Your task to perform on an android device: turn pop-ups on in chrome Image 0: 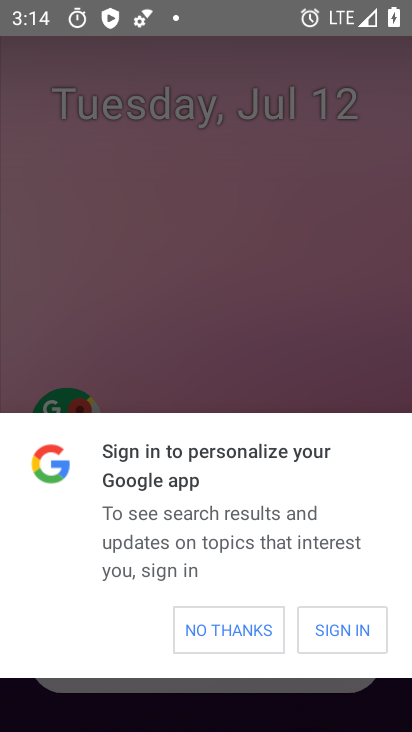
Step 0: press home button
Your task to perform on an android device: turn pop-ups on in chrome Image 1: 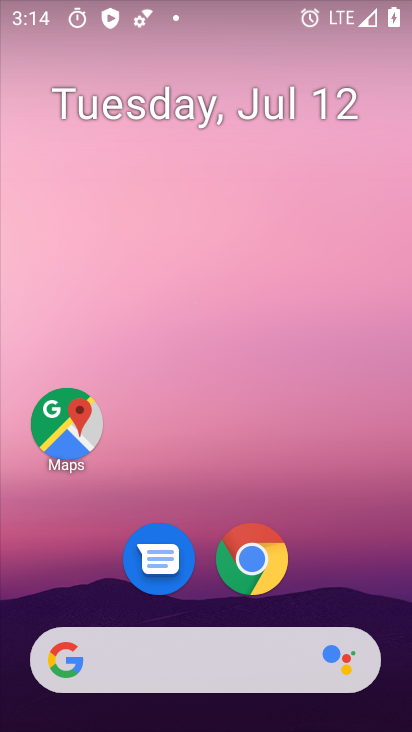
Step 1: drag from (370, 603) to (355, 149)
Your task to perform on an android device: turn pop-ups on in chrome Image 2: 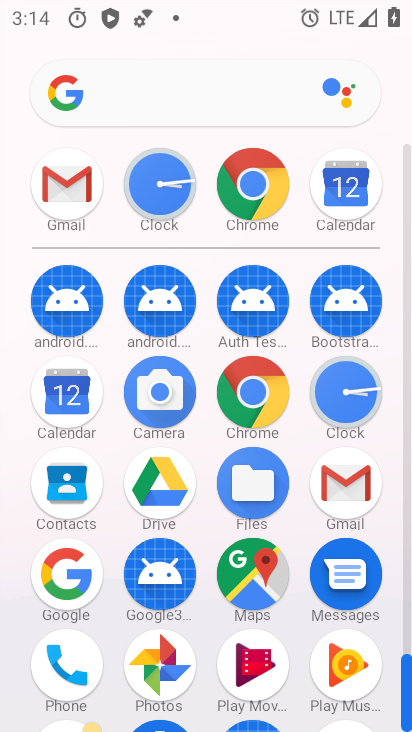
Step 2: click (260, 396)
Your task to perform on an android device: turn pop-ups on in chrome Image 3: 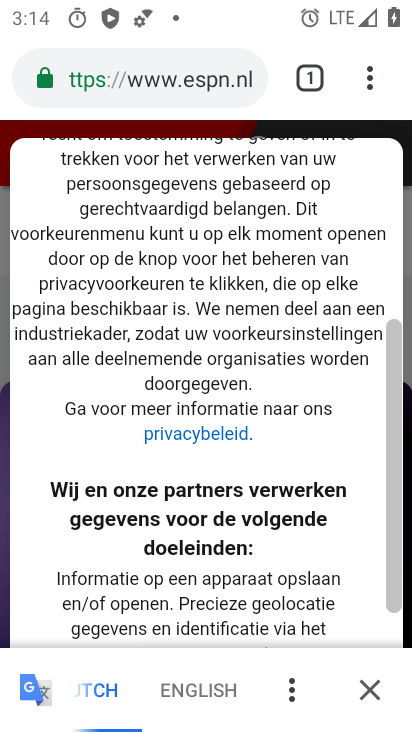
Step 3: click (370, 83)
Your task to perform on an android device: turn pop-ups on in chrome Image 4: 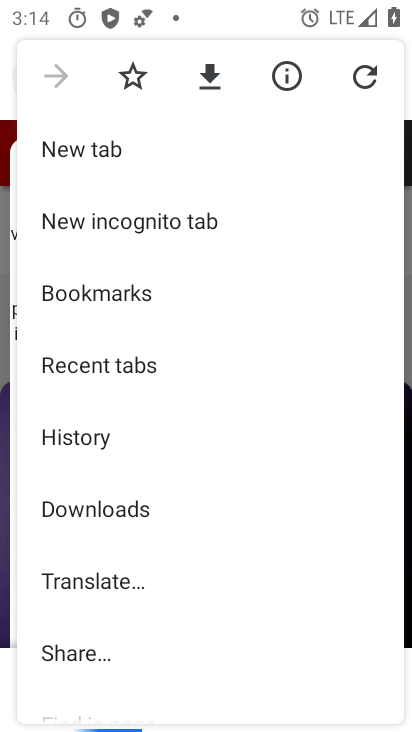
Step 4: drag from (338, 352) to (339, 292)
Your task to perform on an android device: turn pop-ups on in chrome Image 5: 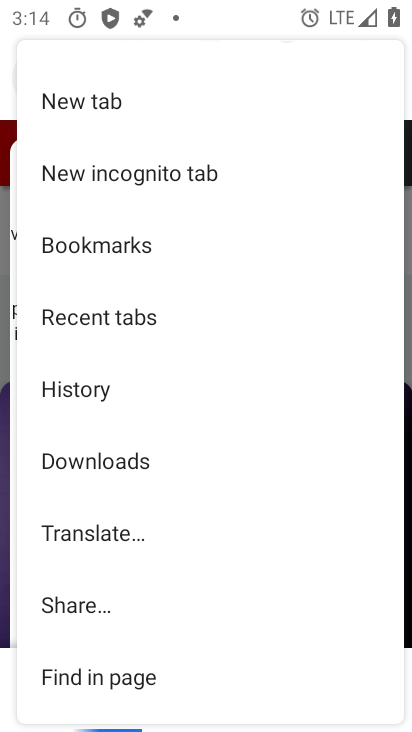
Step 5: drag from (330, 417) to (330, 340)
Your task to perform on an android device: turn pop-ups on in chrome Image 6: 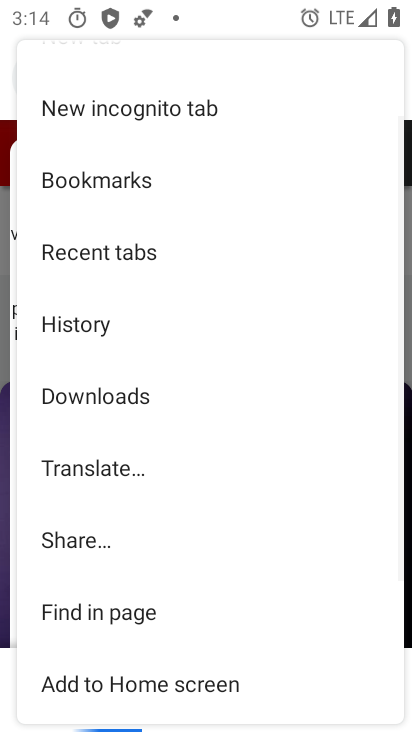
Step 6: drag from (332, 416) to (333, 340)
Your task to perform on an android device: turn pop-ups on in chrome Image 7: 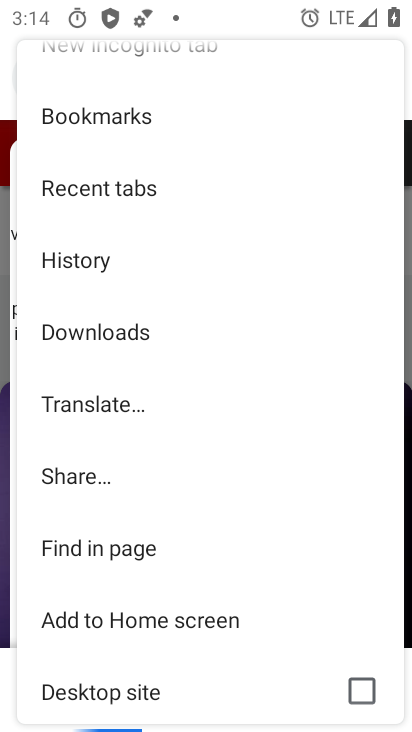
Step 7: drag from (337, 423) to (347, 307)
Your task to perform on an android device: turn pop-ups on in chrome Image 8: 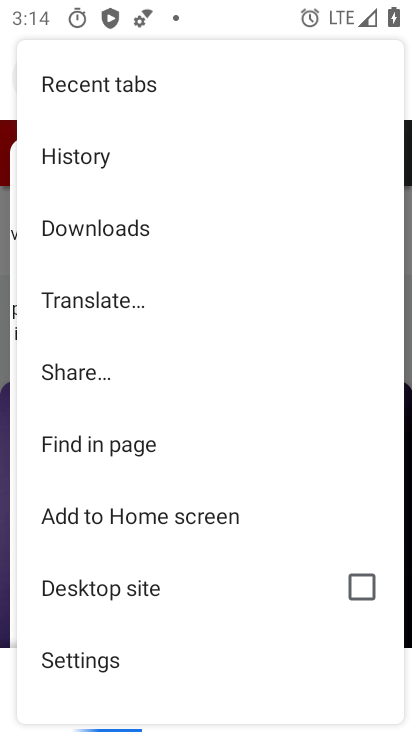
Step 8: drag from (346, 432) to (352, 317)
Your task to perform on an android device: turn pop-ups on in chrome Image 9: 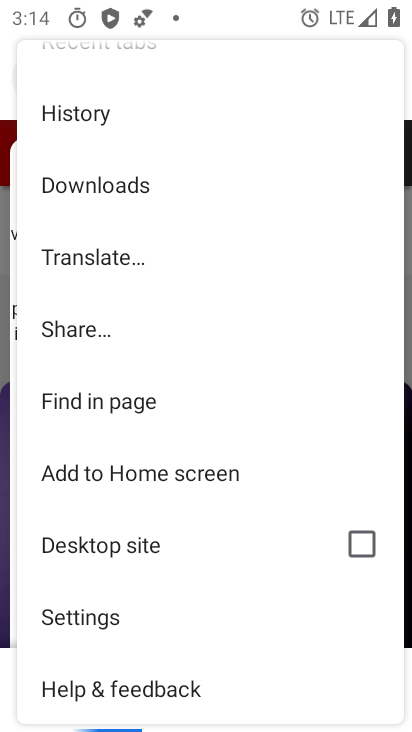
Step 9: click (200, 634)
Your task to perform on an android device: turn pop-ups on in chrome Image 10: 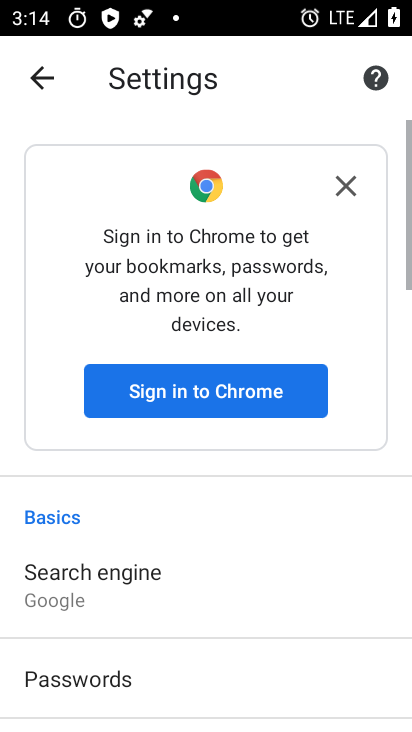
Step 10: drag from (336, 556) to (346, 469)
Your task to perform on an android device: turn pop-ups on in chrome Image 11: 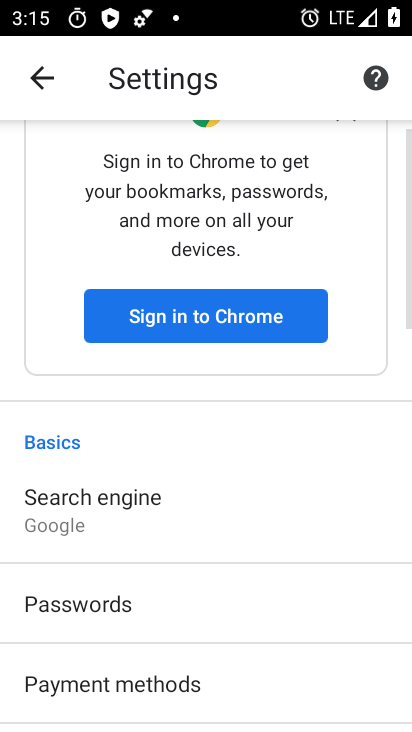
Step 11: drag from (357, 544) to (357, 461)
Your task to perform on an android device: turn pop-ups on in chrome Image 12: 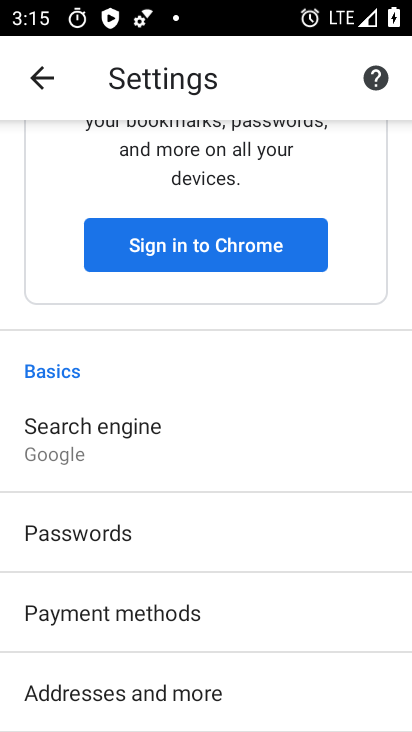
Step 12: drag from (354, 554) to (363, 478)
Your task to perform on an android device: turn pop-ups on in chrome Image 13: 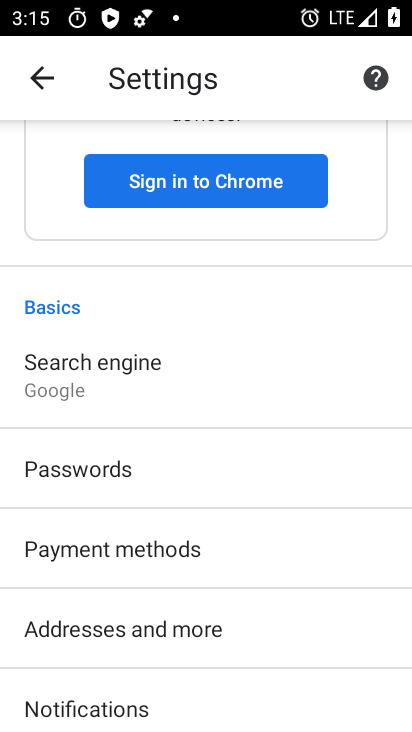
Step 13: drag from (362, 559) to (367, 497)
Your task to perform on an android device: turn pop-ups on in chrome Image 14: 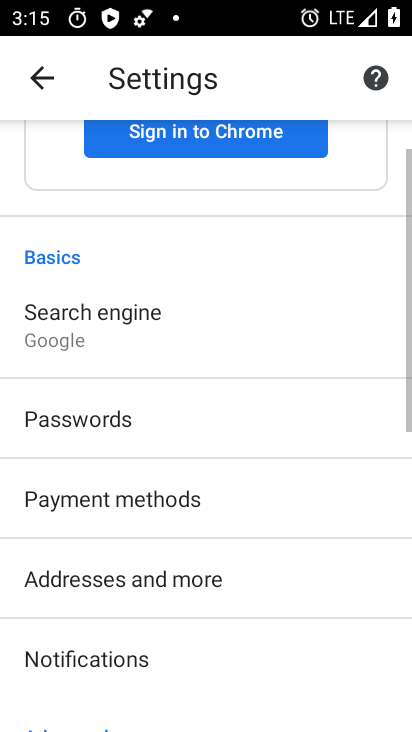
Step 14: drag from (366, 563) to (367, 501)
Your task to perform on an android device: turn pop-ups on in chrome Image 15: 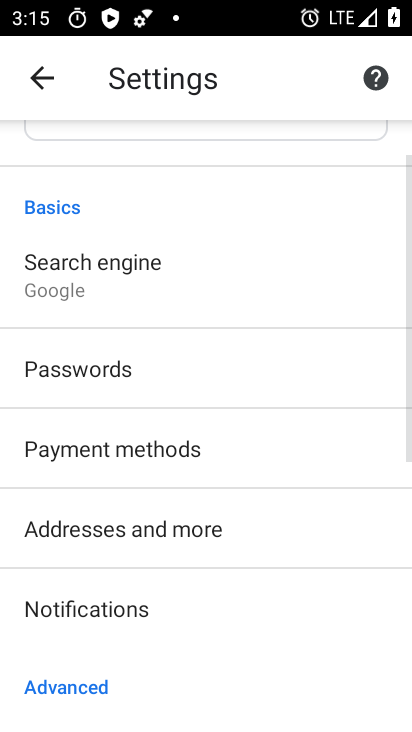
Step 15: drag from (360, 587) to (360, 509)
Your task to perform on an android device: turn pop-ups on in chrome Image 16: 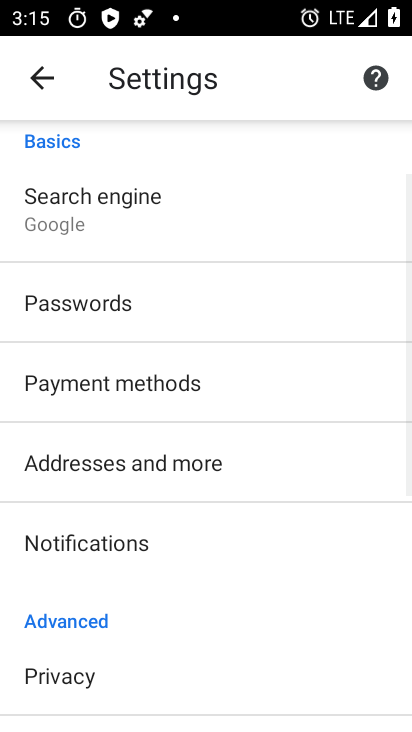
Step 16: drag from (357, 580) to (358, 506)
Your task to perform on an android device: turn pop-ups on in chrome Image 17: 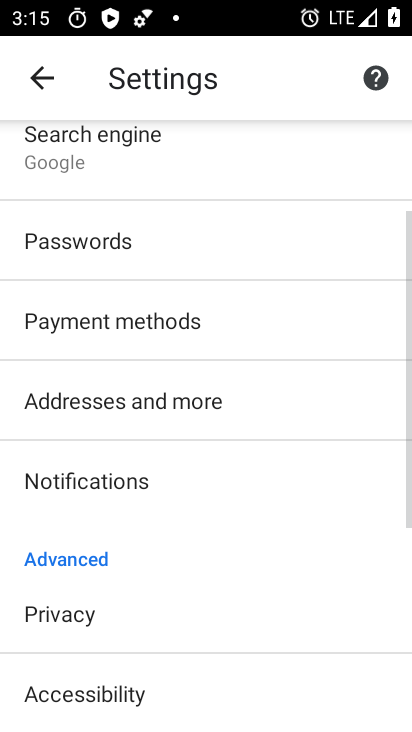
Step 17: drag from (359, 585) to (359, 520)
Your task to perform on an android device: turn pop-ups on in chrome Image 18: 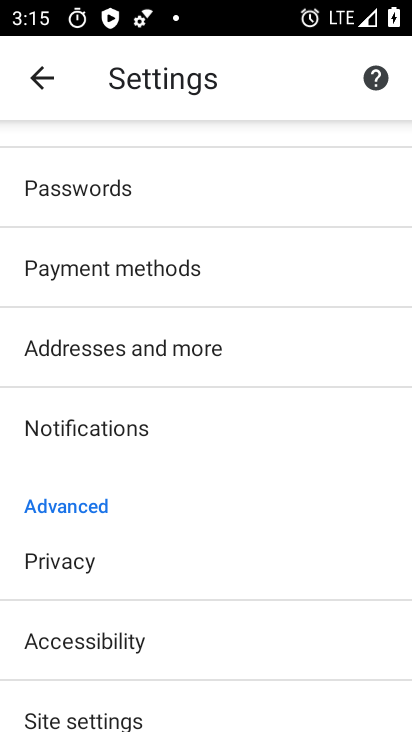
Step 18: drag from (347, 573) to (357, 507)
Your task to perform on an android device: turn pop-ups on in chrome Image 19: 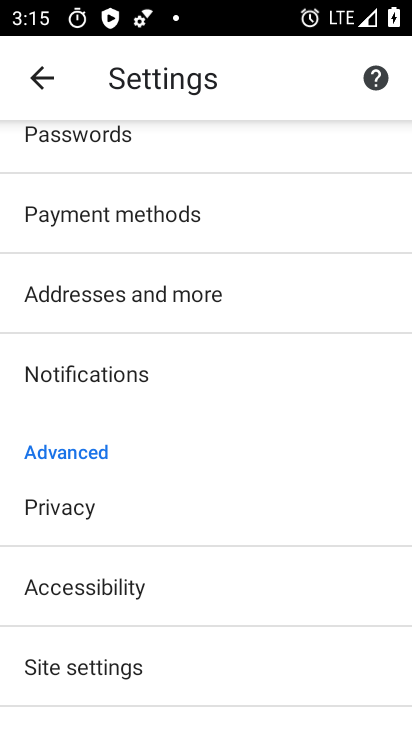
Step 19: drag from (332, 629) to (332, 530)
Your task to perform on an android device: turn pop-ups on in chrome Image 20: 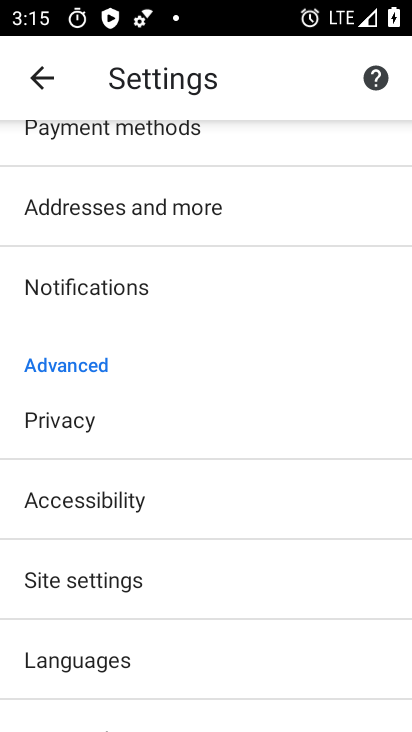
Step 20: drag from (330, 618) to (322, 358)
Your task to perform on an android device: turn pop-ups on in chrome Image 21: 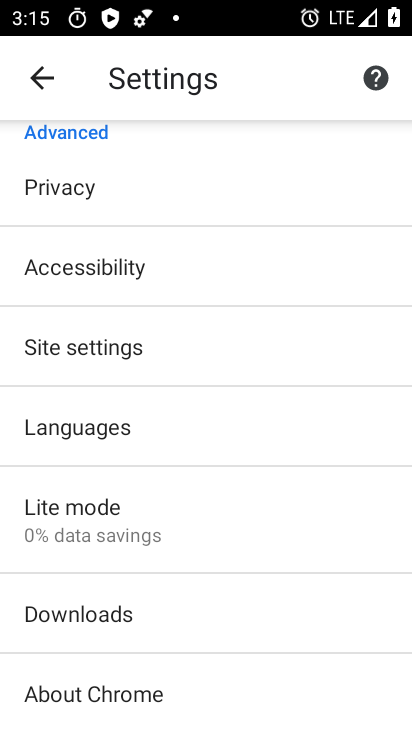
Step 21: click (240, 352)
Your task to perform on an android device: turn pop-ups on in chrome Image 22: 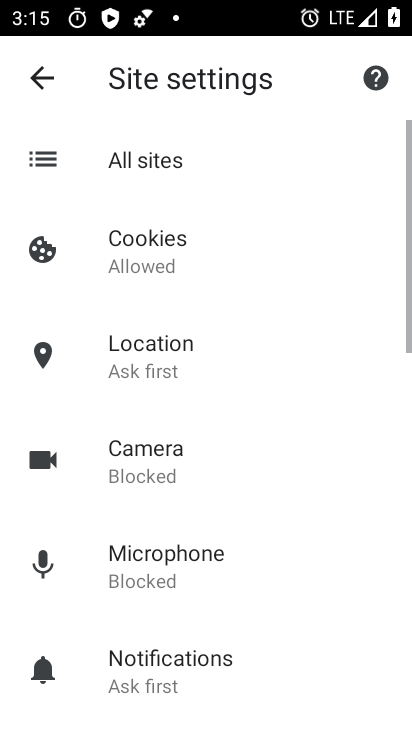
Step 22: drag from (292, 518) to (295, 427)
Your task to perform on an android device: turn pop-ups on in chrome Image 23: 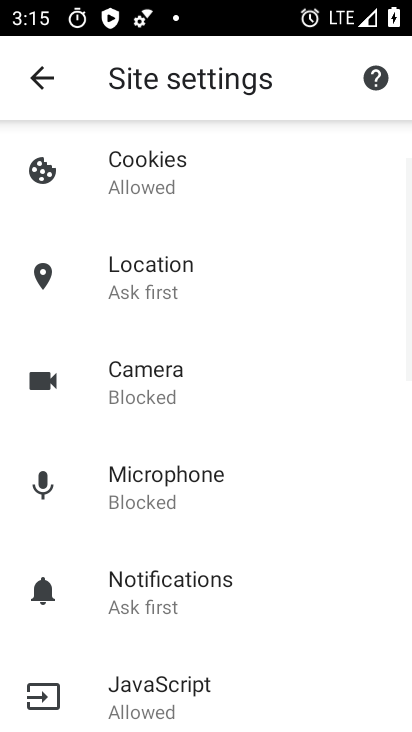
Step 23: drag from (327, 525) to (327, 453)
Your task to perform on an android device: turn pop-ups on in chrome Image 24: 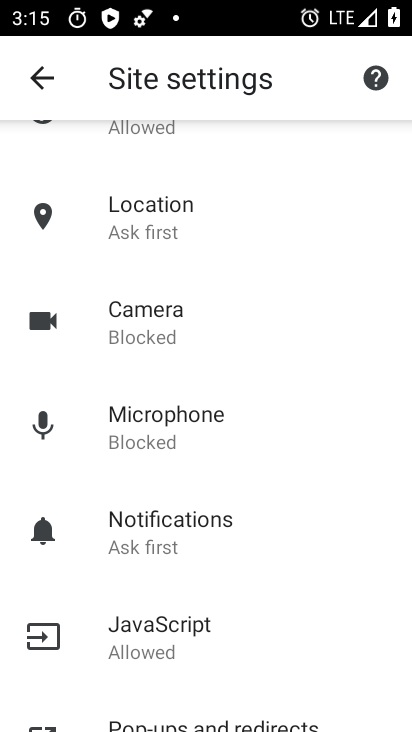
Step 24: drag from (331, 570) to (348, 463)
Your task to perform on an android device: turn pop-ups on in chrome Image 25: 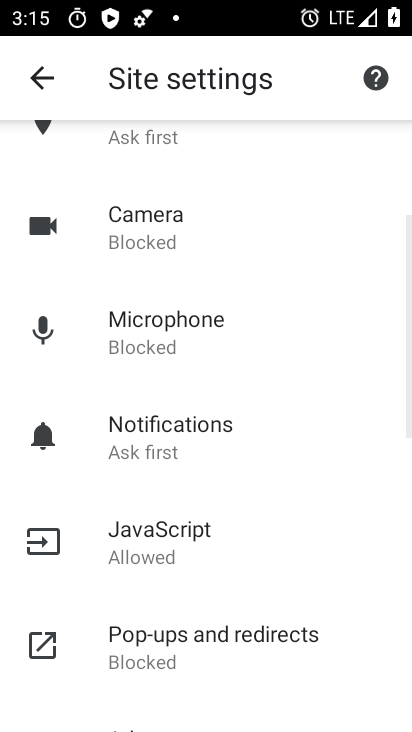
Step 25: drag from (361, 566) to (358, 484)
Your task to perform on an android device: turn pop-ups on in chrome Image 26: 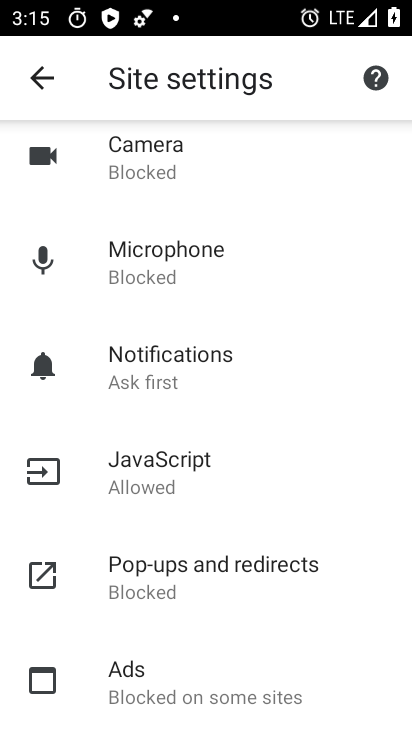
Step 26: drag from (360, 594) to (362, 496)
Your task to perform on an android device: turn pop-ups on in chrome Image 27: 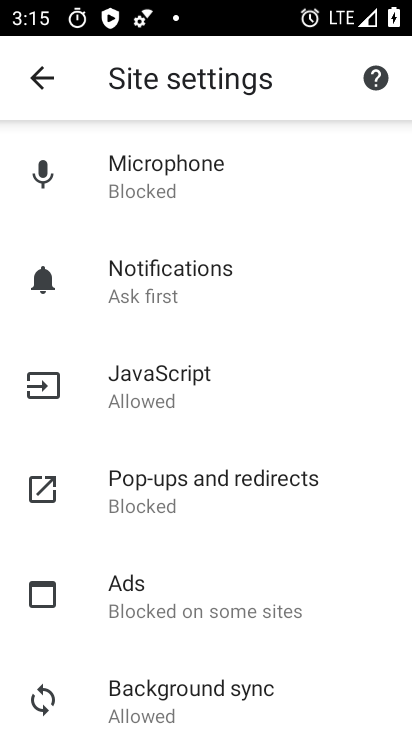
Step 27: click (299, 513)
Your task to perform on an android device: turn pop-ups on in chrome Image 28: 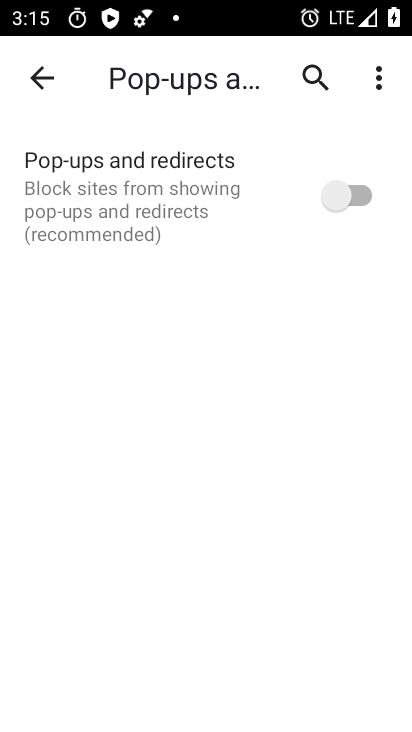
Step 28: click (341, 196)
Your task to perform on an android device: turn pop-ups on in chrome Image 29: 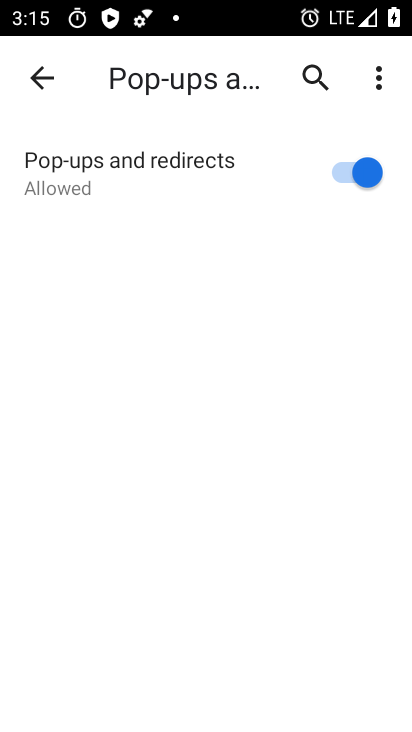
Step 29: task complete